Your task to perform on an android device: Find coffee shops on Maps Image 0: 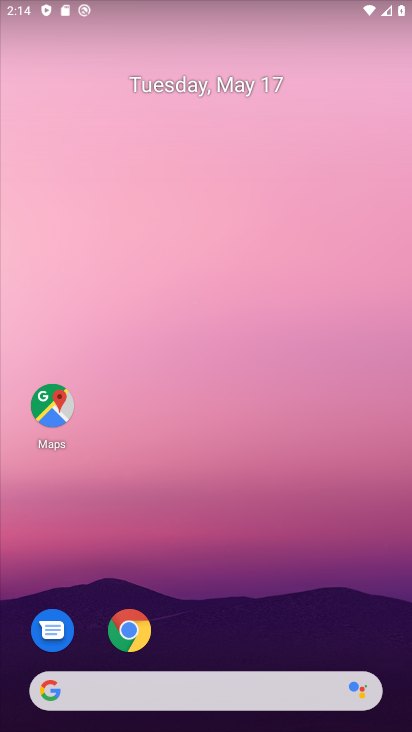
Step 0: drag from (310, 609) to (211, 180)
Your task to perform on an android device: Find coffee shops on Maps Image 1: 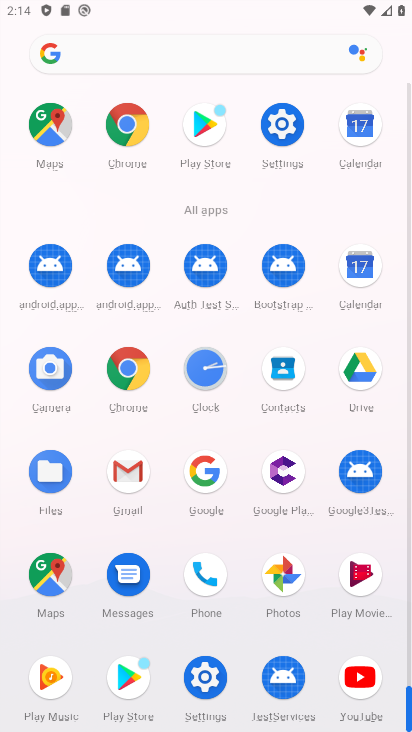
Step 1: click (43, 574)
Your task to perform on an android device: Find coffee shops on Maps Image 2: 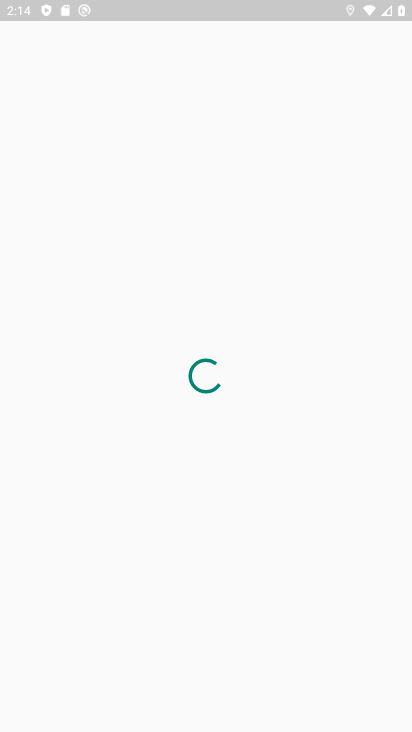
Step 2: click (75, 49)
Your task to perform on an android device: Find coffee shops on Maps Image 3: 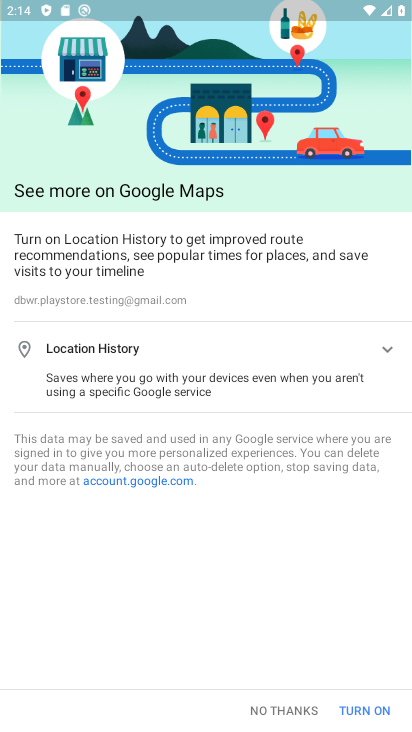
Step 3: click (277, 711)
Your task to perform on an android device: Find coffee shops on Maps Image 4: 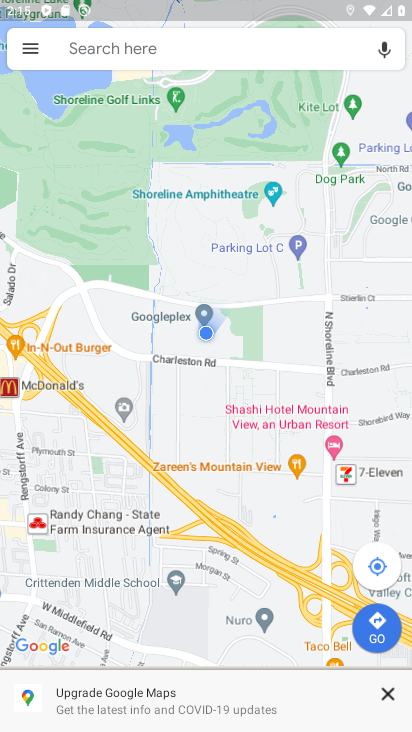
Step 4: click (75, 49)
Your task to perform on an android device: Find coffee shops on Maps Image 5: 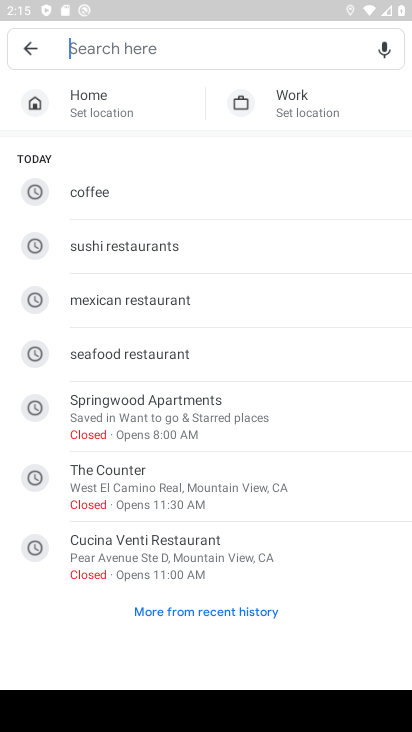
Step 5: type "coffee"
Your task to perform on an android device: Find coffee shops on Maps Image 6: 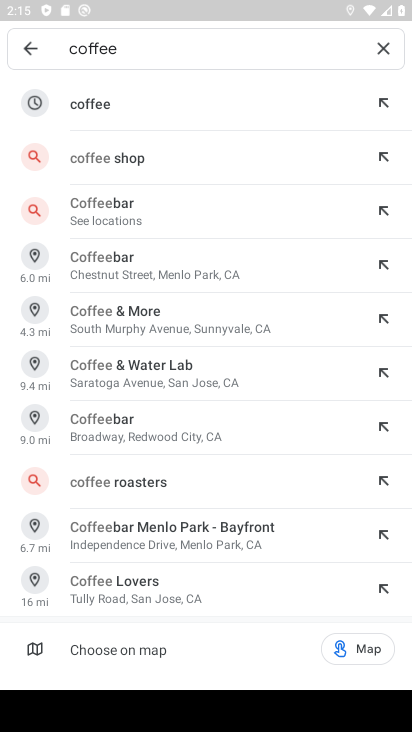
Step 6: click (74, 109)
Your task to perform on an android device: Find coffee shops on Maps Image 7: 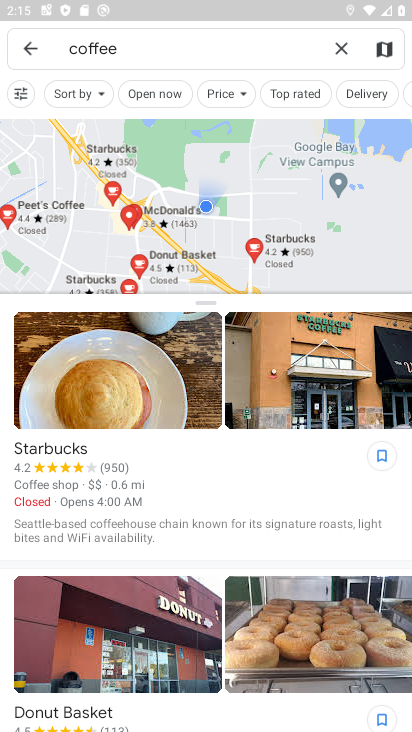
Step 7: task complete